Your task to perform on an android device: Do I have any events today? Image 0: 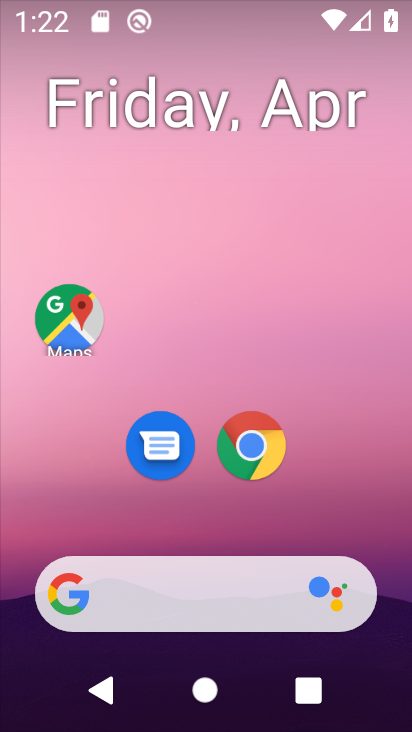
Step 0: drag from (361, 513) to (366, 85)
Your task to perform on an android device: Do I have any events today? Image 1: 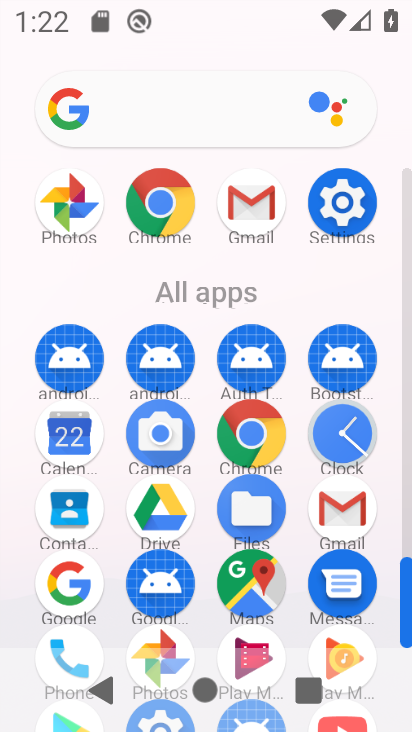
Step 1: click (84, 446)
Your task to perform on an android device: Do I have any events today? Image 2: 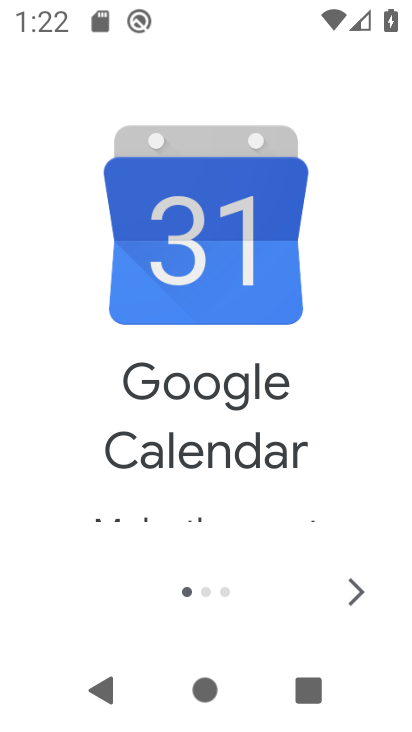
Step 2: click (351, 592)
Your task to perform on an android device: Do I have any events today? Image 3: 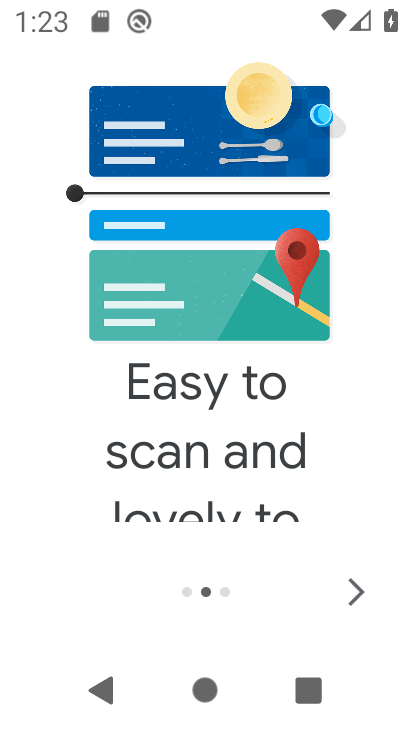
Step 3: click (351, 592)
Your task to perform on an android device: Do I have any events today? Image 4: 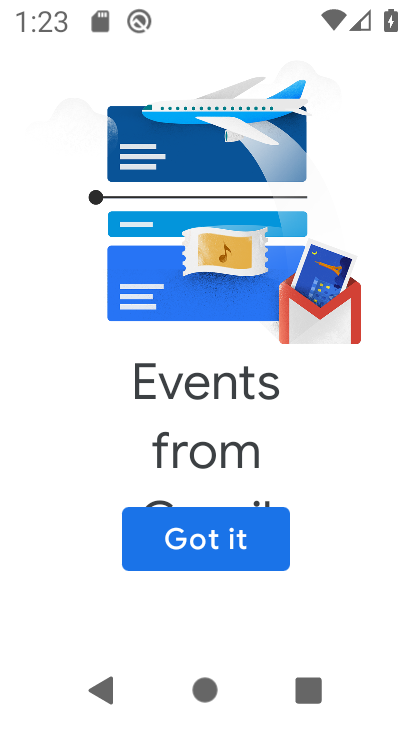
Step 4: click (249, 552)
Your task to perform on an android device: Do I have any events today? Image 5: 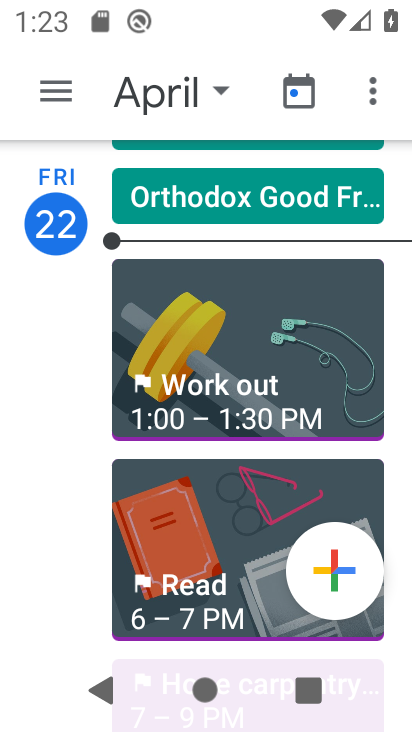
Step 5: click (239, 377)
Your task to perform on an android device: Do I have any events today? Image 6: 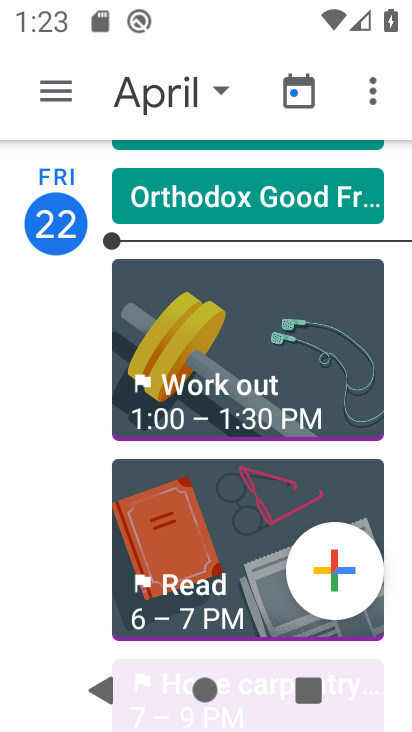
Step 6: click (228, 355)
Your task to perform on an android device: Do I have any events today? Image 7: 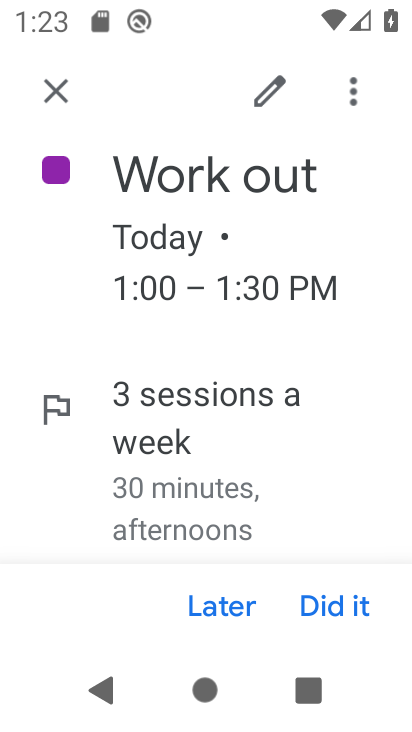
Step 7: task complete